Your task to perform on an android device: Go to wifi settings Image 0: 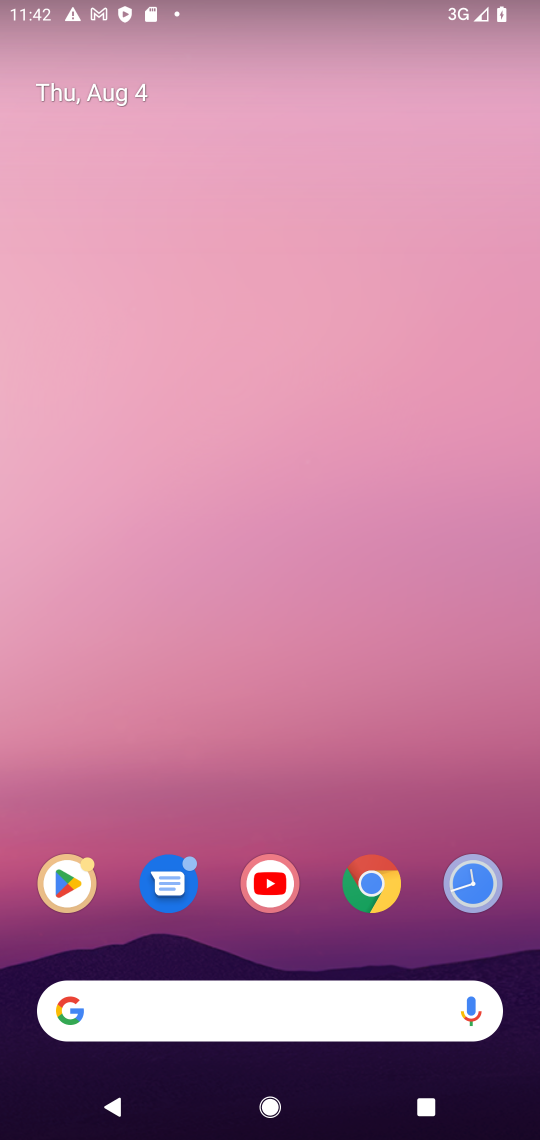
Step 0: drag from (276, 874) to (302, 549)
Your task to perform on an android device: Go to wifi settings Image 1: 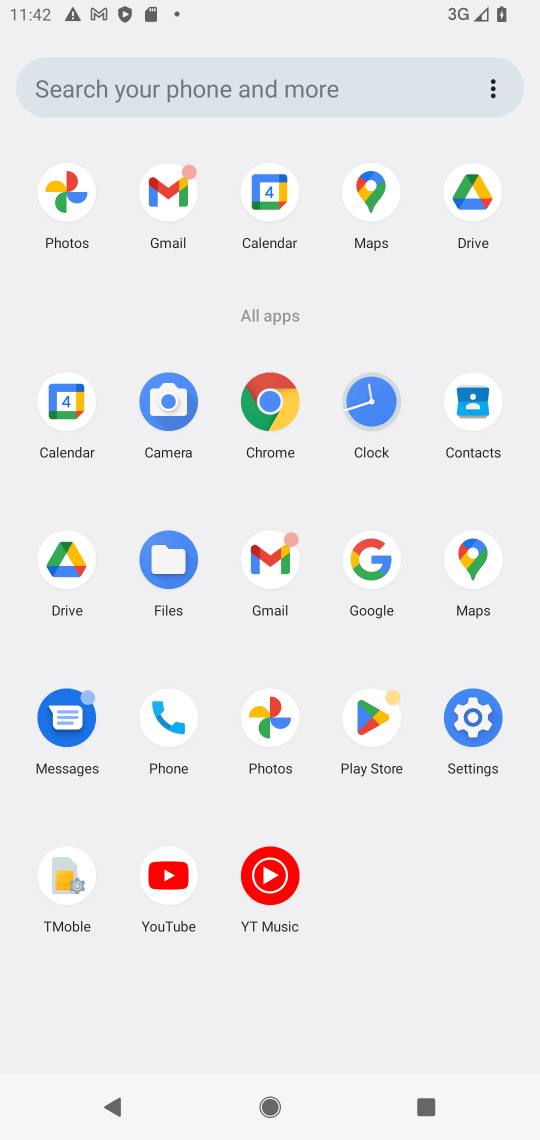
Step 1: click (468, 714)
Your task to perform on an android device: Go to wifi settings Image 2: 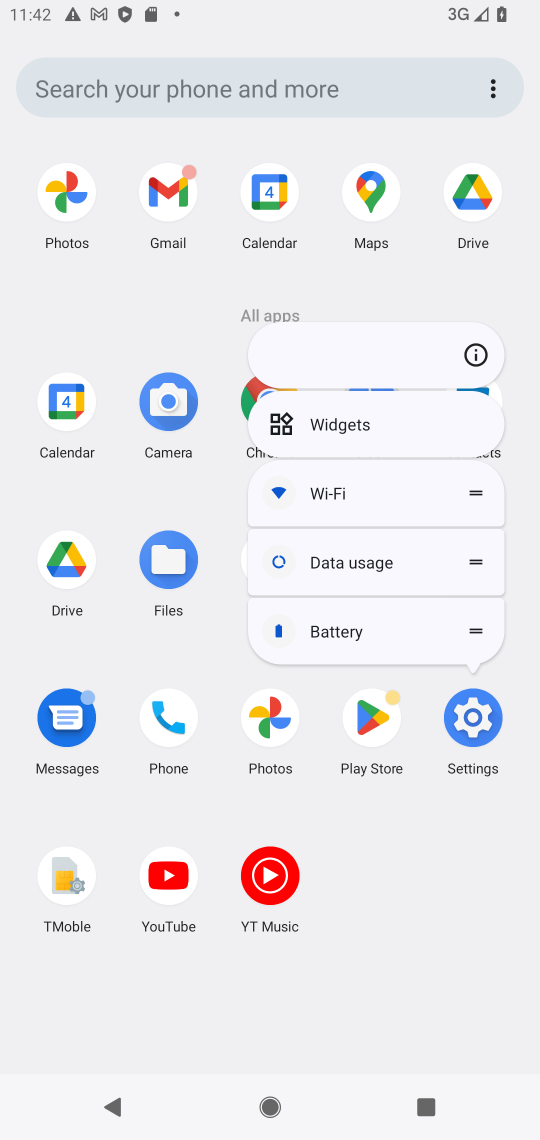
Step 2: click (480, 354)
Your task to perform on an android device: Go to wifi settings Image 3: 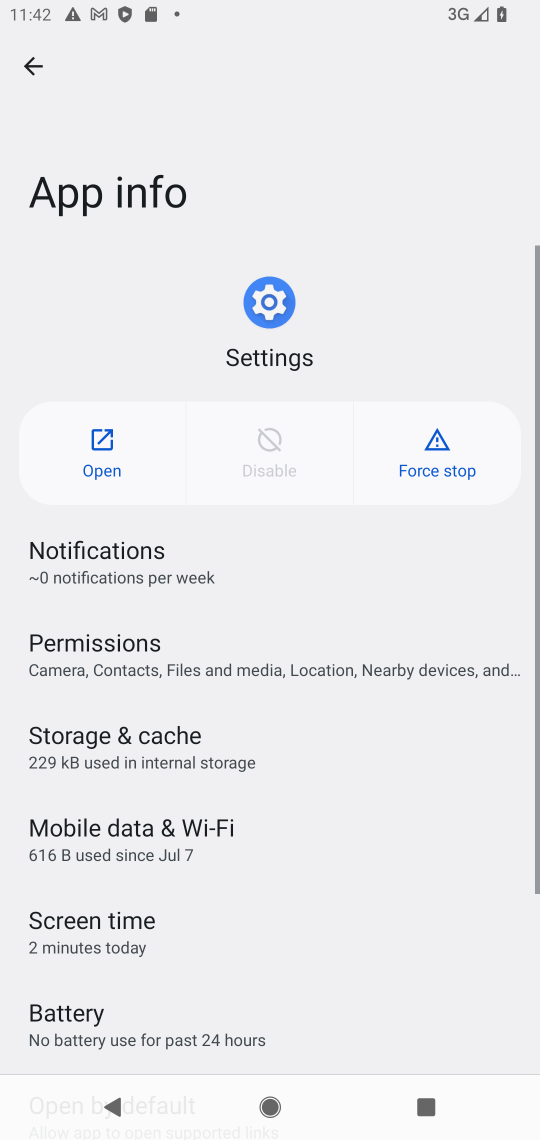
Step 3: click (103, 434)
Your task to perform on an android device: Go to wifi settings Image 4: 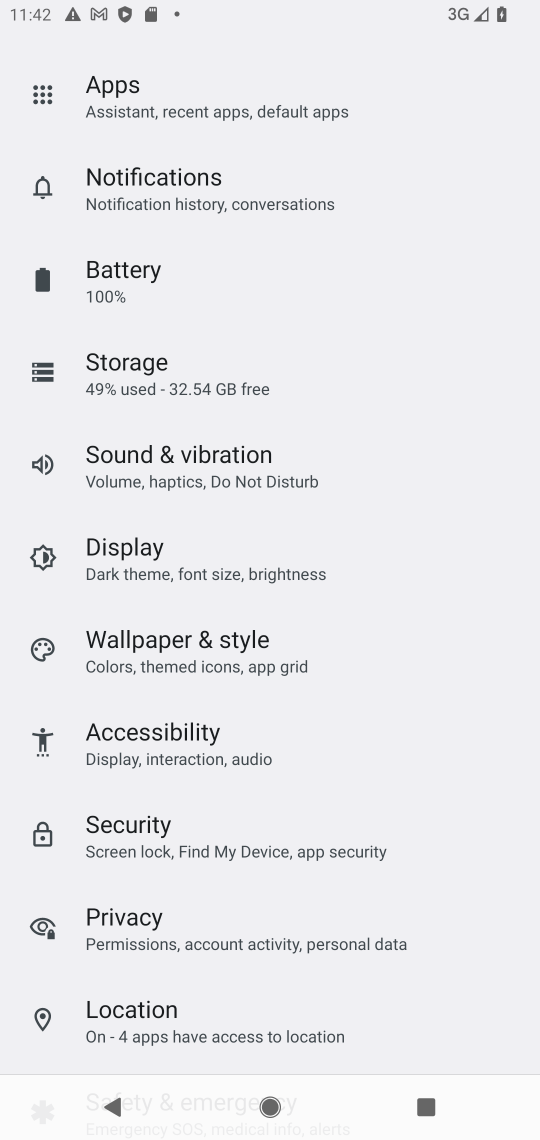
Step 4: drag from (230, 206) to (202, 947)
Your task to perform on an android device: Go to wifi settings Image 5: 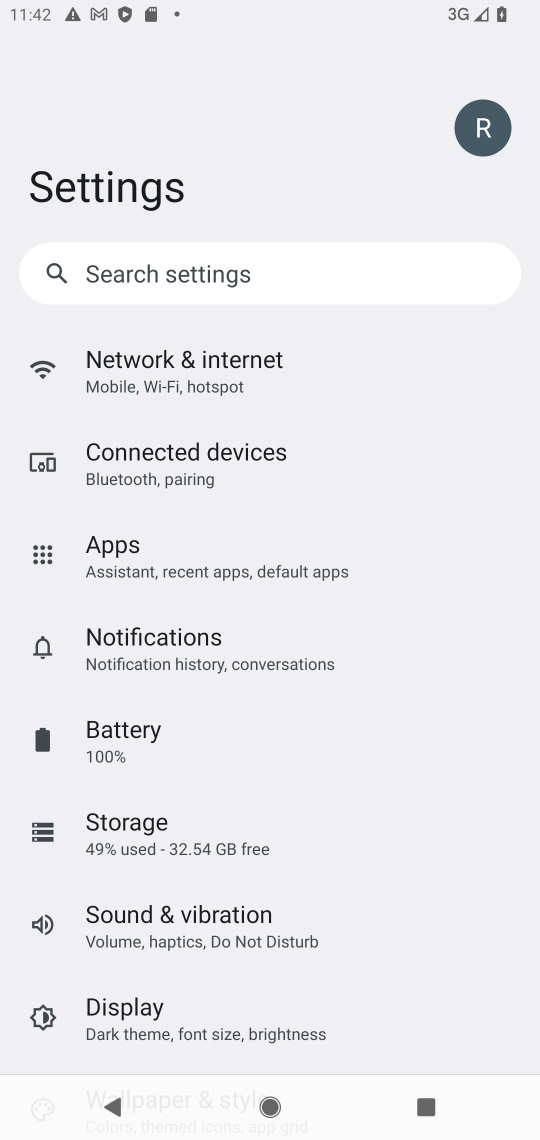
Step 5: click (307, 368)
Your task to perform on an android device: Go to wifi settings Image 6: 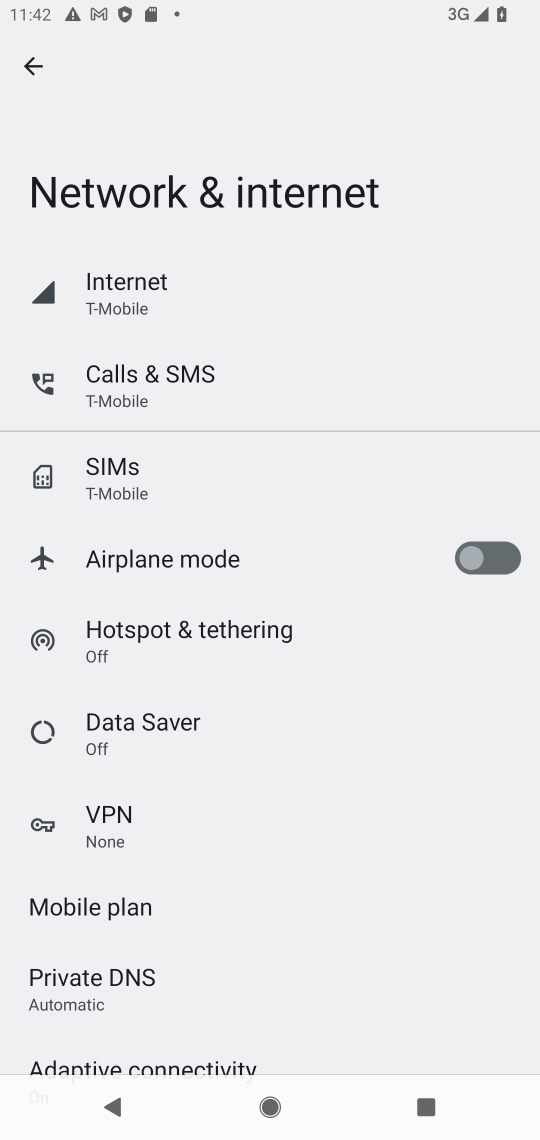
Step 6: drag from (164, 944) to (237, 457)
Your task to perform on an android device: Go to wifi settings Image 7: 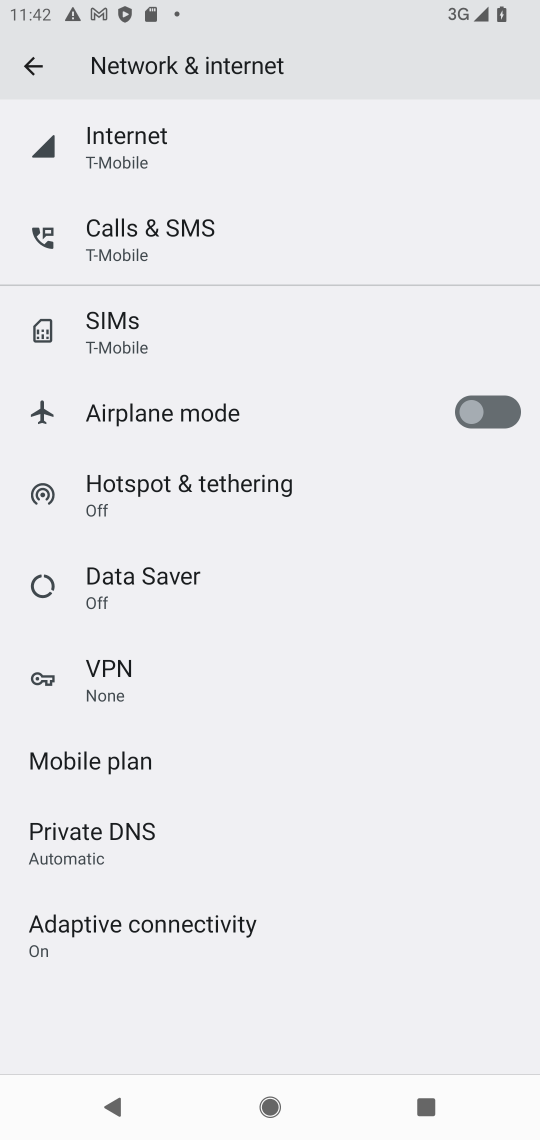
Step 7: click (175, 120)
Your task to perform on an android device: Go to wifi settings Image 8: 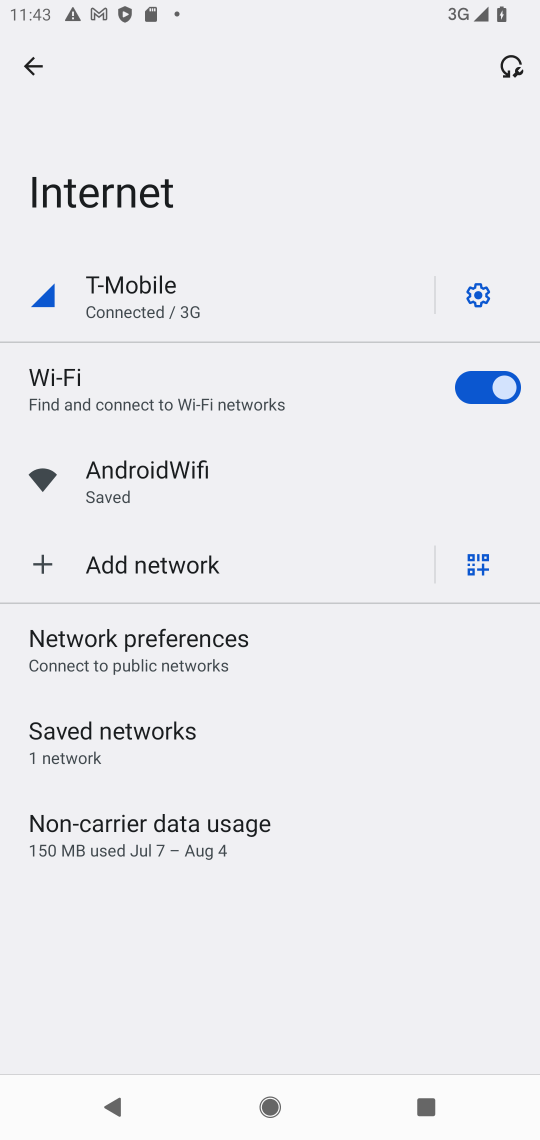
Step 8: click (471, 461)
Your task to perform on an android device: Go to wifi settings Image 9: 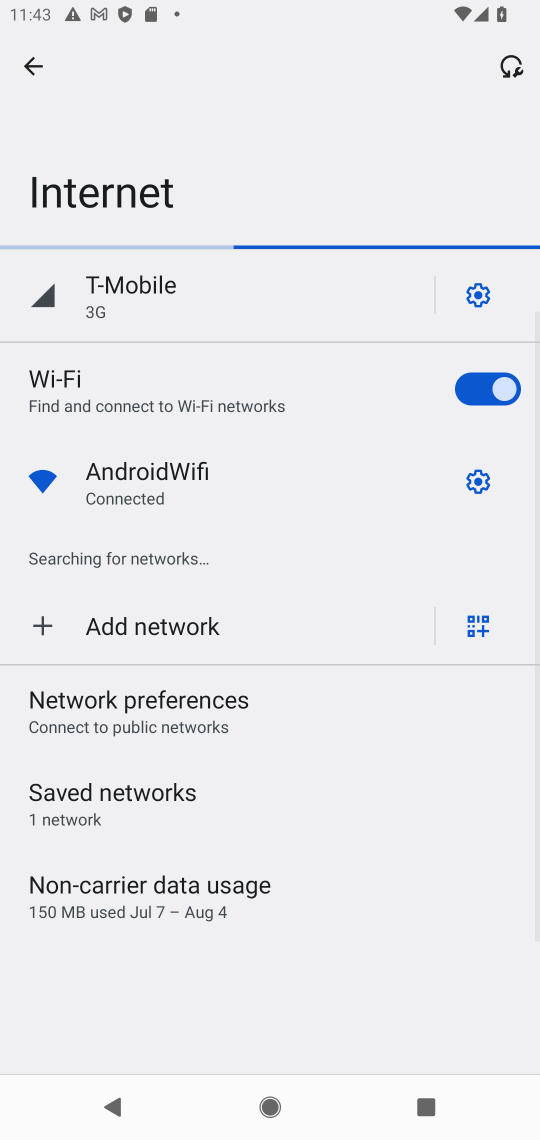
Step 9: click (483, 481)
Your task to perform on an android device: Go to wifi settings Image 10: 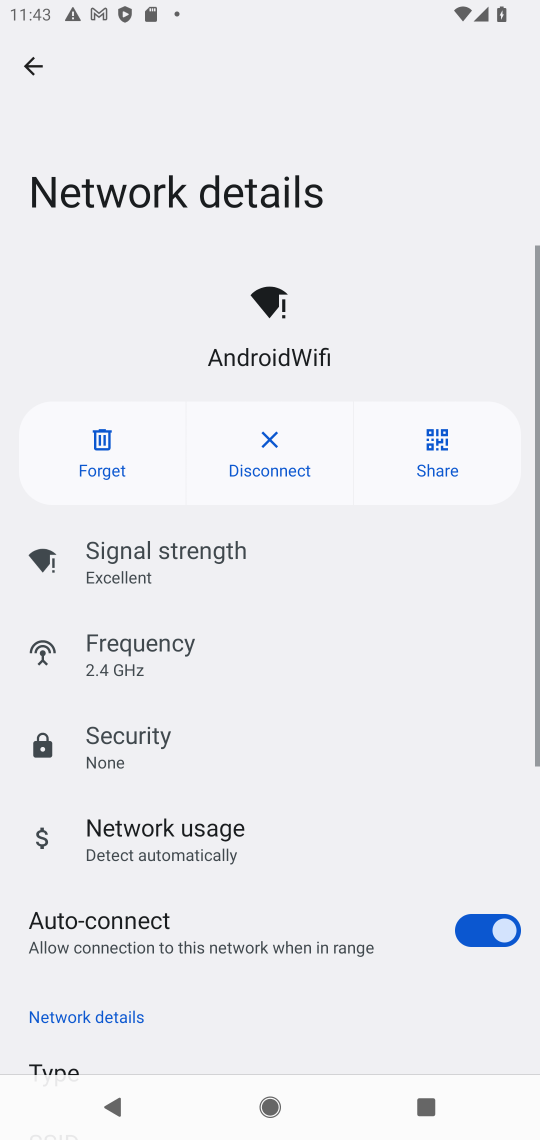
Step 10: task complete